Your task to perform on an android device: Search for sushi restaurants on Maps Image 0: 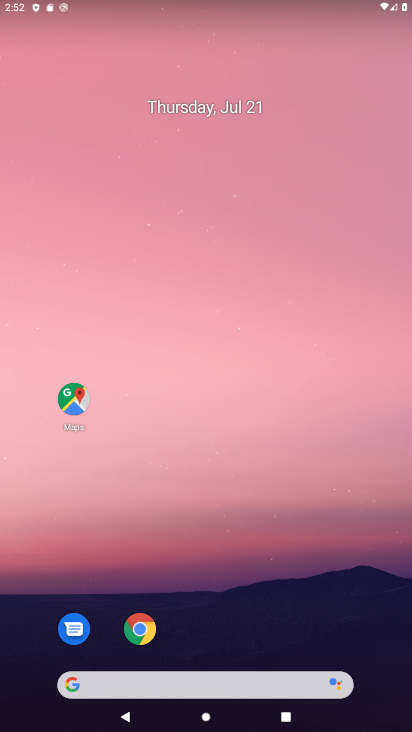
Step 0: click (69, 409)
Your task to perform on an android device: Search for sushi restaurants on Maps Image 1: 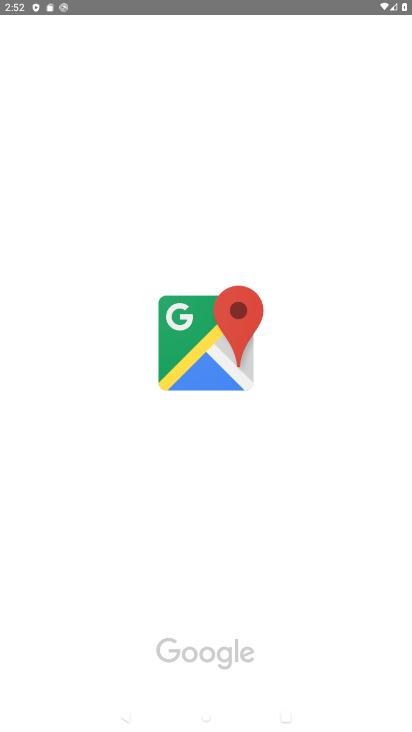
Step 1: click (73, 395)
Your task to perform on an android device: Search for sushi restaurants on Maps Image 2: 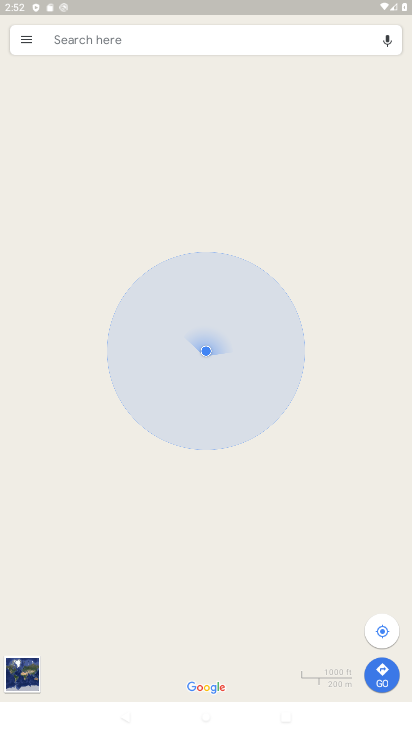
Step 2: click (80, 40)
Your task to perform on an android device: Search for sushi restaurants on Maps Image 3: 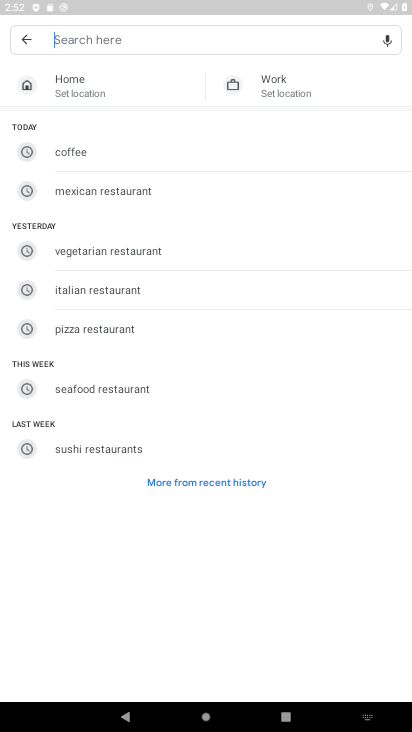
Step 3: type "sushi restaurants"
Your task to perform on an android device: Search for sushi restaurants on Maps Image 4: 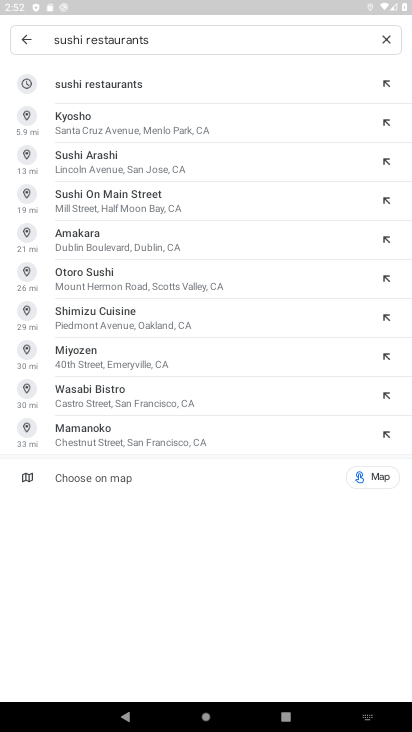
Step 4: click (132, 79)
Your task to perform on an android device: Search for sushi restaurants on Maps Image 5: 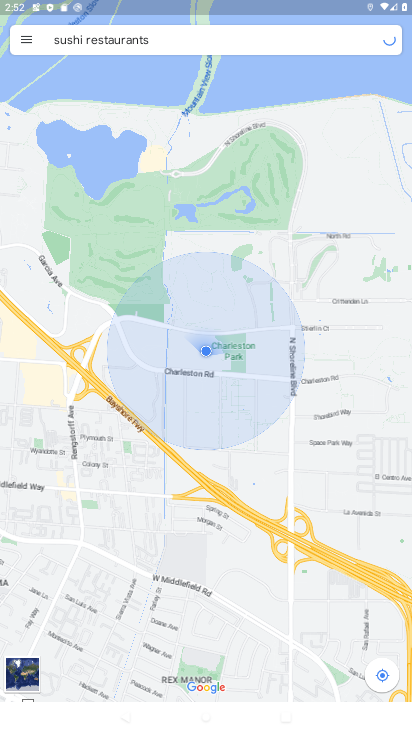
Step 5: task complete